Your task to perform on an android device: Open Google Chrome and click the shortcut for Amazon.com Image 0: 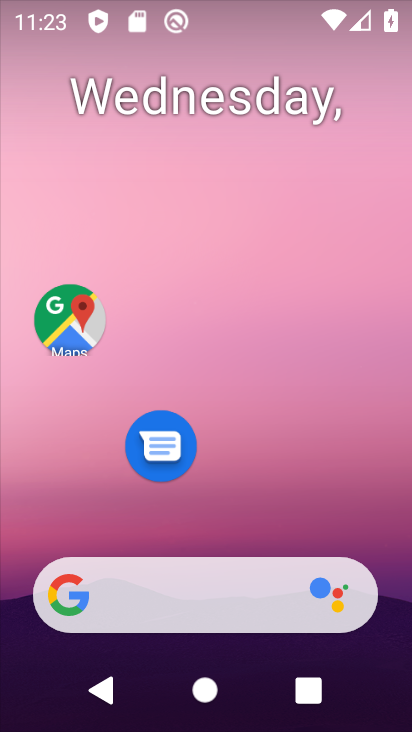
Step 0: drag from (270, 478) to (241, 87)
Your task to perform on an android device: Open Google Chrome and click the shortcut for Amazon.com Image 1: 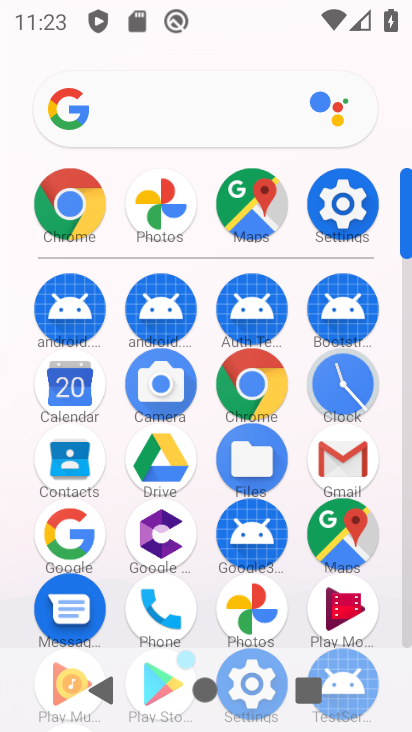
Step 1: click (251, 386)
Your task to perform on an android device: Open Google Chrome and click the shortcut for Amazon.com Image 2: 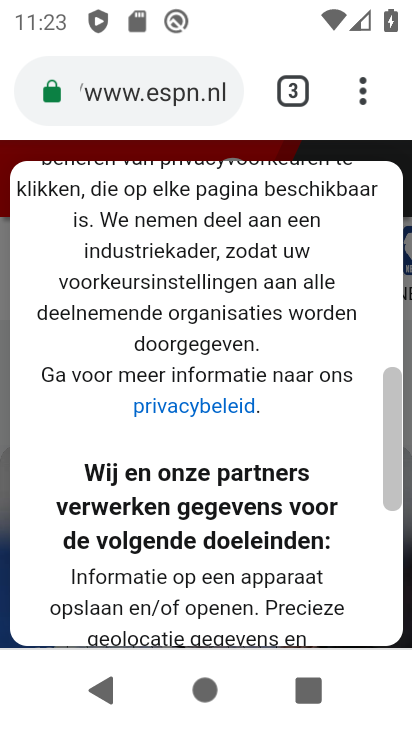
Step 2: click (296, 89)
Your task to perform on an android device: Open Google Chrome and click the shortcut for Amazon.com Image 3: 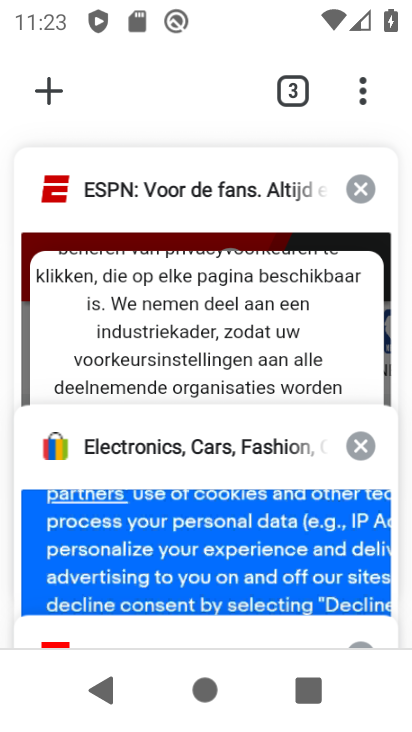
Step 3: click (57, 81)
Your task to perform on an android device: Open Google Chrome and click the shortcut for Amazon.com Image 4: 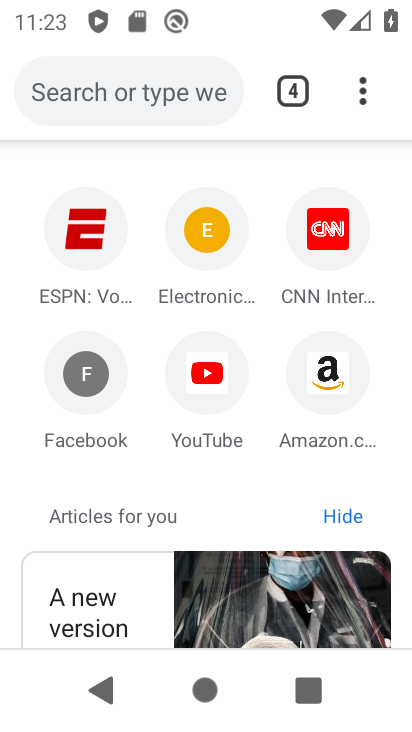
Step 4: click (332, 372)
Your task to perform on an android device: Open Google Chrome and click the shortcut for Amazon.com Image 5: 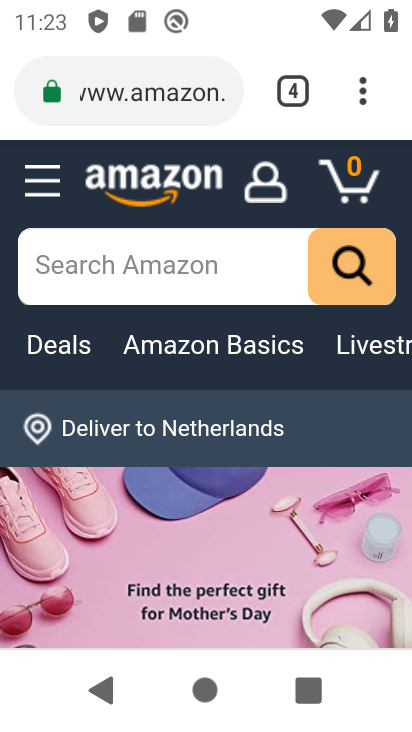
Step 5: task complete